Your task to perform on an android device: turn off location Image 0: 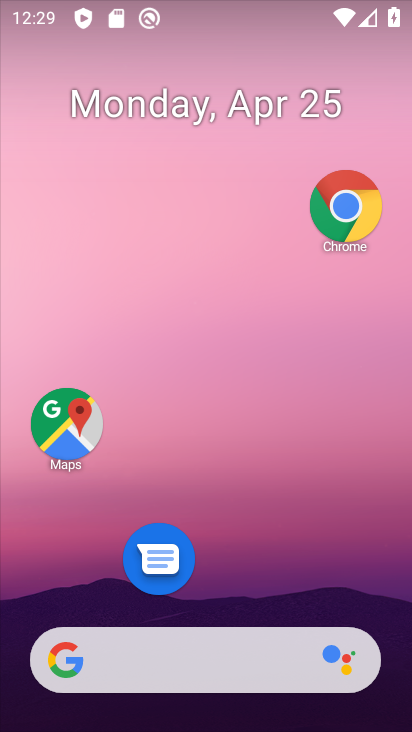
Step 0: drag from (225, 491) to (246, 18)
Your task to perform on an android device: turn off location Image 1: 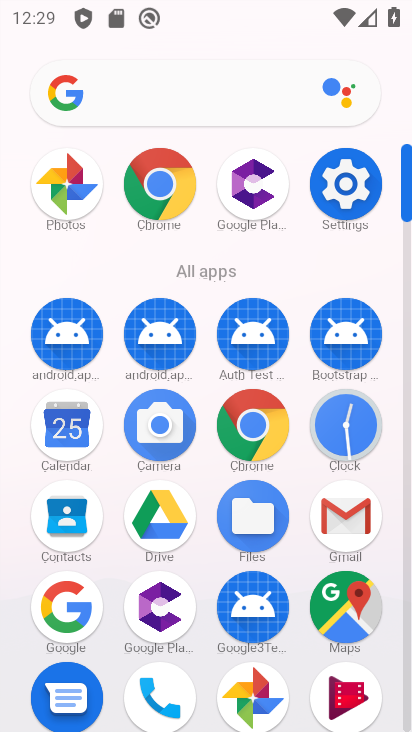
Step 1: click (368, 182)
Your task to perform on an android device: turn off location Image 2: 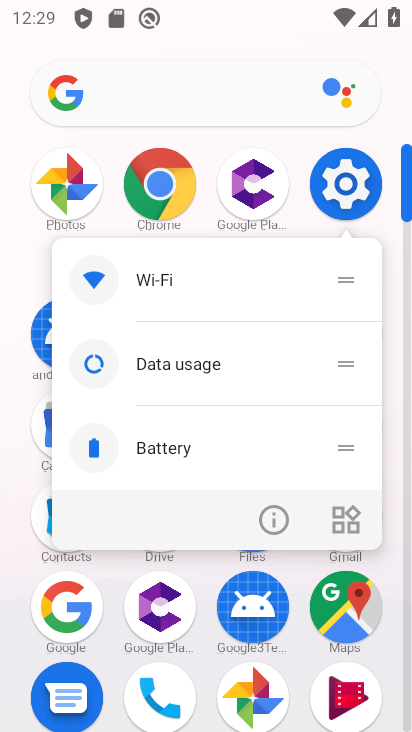
Step 2: click (342, 179)
Your task to perform on an android device: turn off location Image 3: 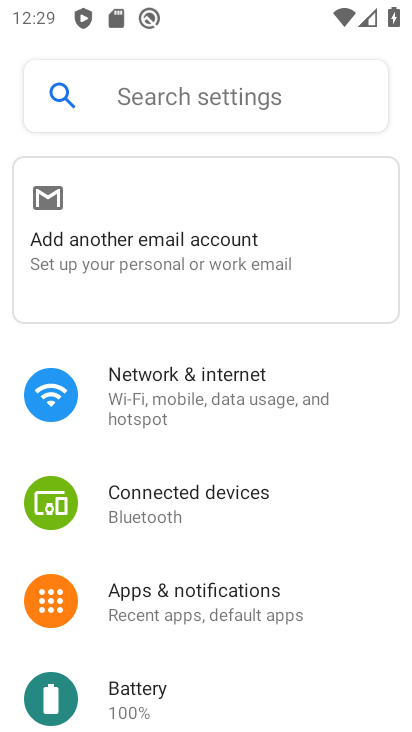
Step 3: drag from (208, 661) to (314, 141)
Your task to perform on an android device: turn off location Image 4: 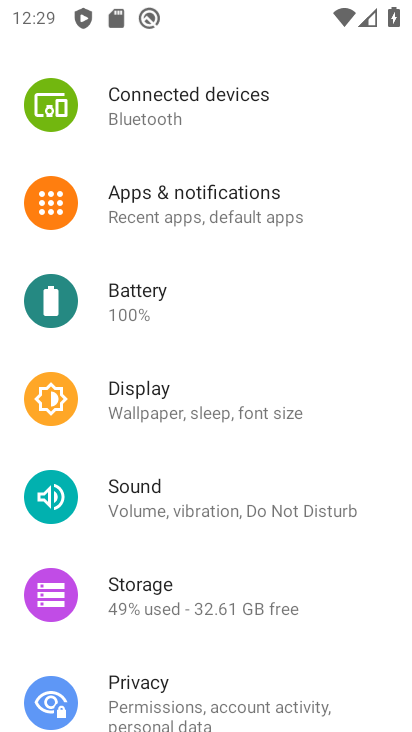
Step 4: drag from (234, 624) to (277, 234)
Your task to perform on an android device: turn off location Image 5: 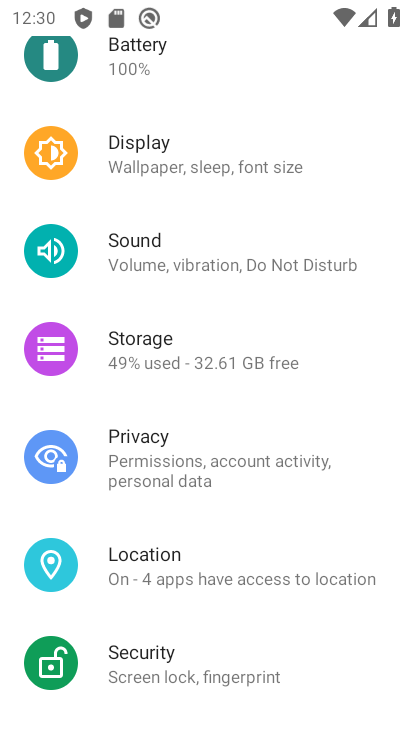
Step 5: click (171, 556)
Your task to perform on an android device: turn off location Image 6: 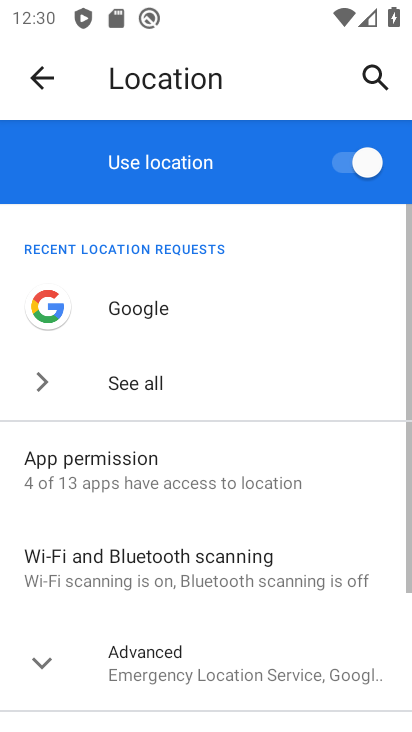
Step 6: click (364, 166)
Your task to perform on an android device: turn off location Image 7: 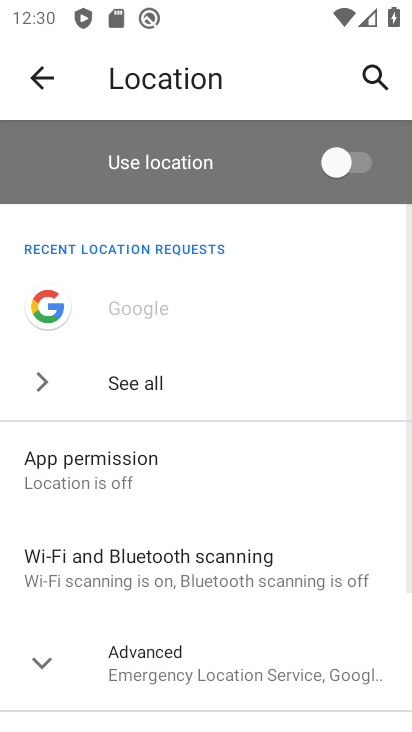
Step 7: task complete